Your task to perform on an android device: When is my next appointment? Image 0: 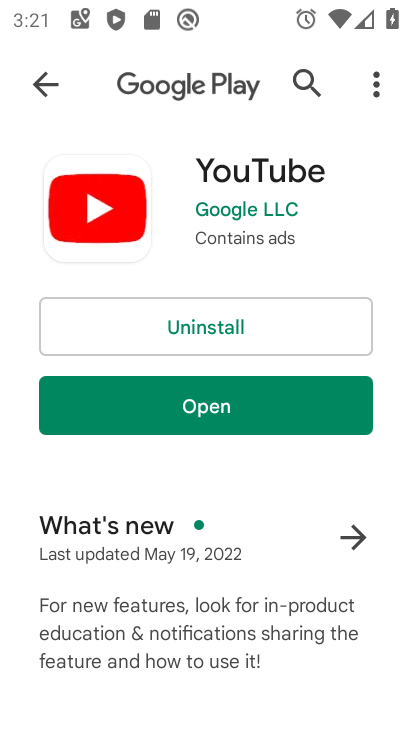
Step 0: press home button
Your task to perform on an android device: When is my next appointment? Image 1: 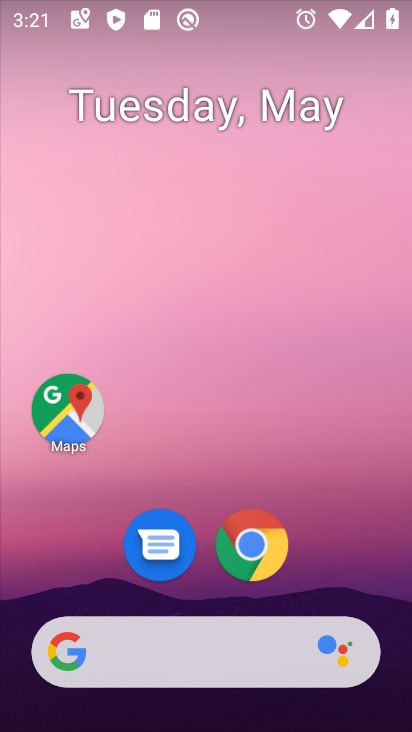
Step 1: drag from (208, 650) to (147, 121)
Your task to perform on an android device: When is my next appointment? Image 2: 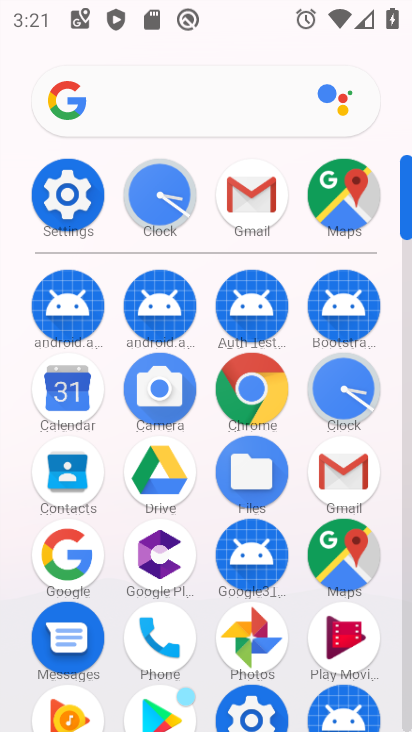
Step 2: click (65, 405)
Your task to perform on an android device: When is my next appointment? Image 3: 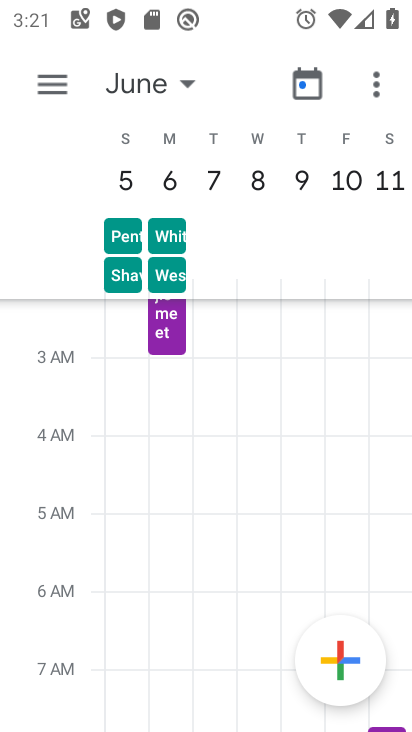
Step 3: drag from (88, 445) to (382, 356)
Your task to perform on an android device: When is my next appointment? Image 4: 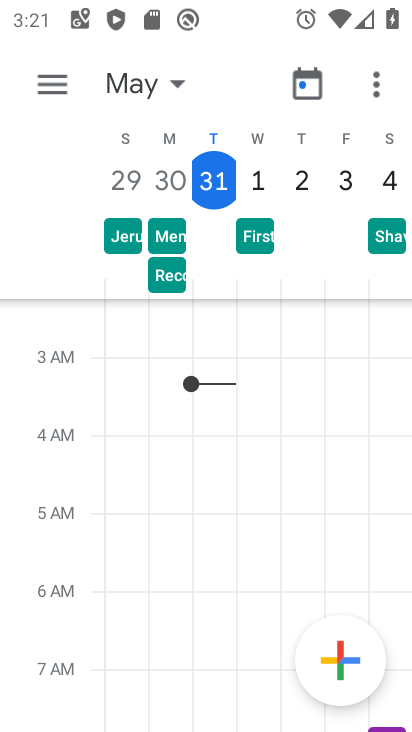
Step 4: click (52, 84)
Your task to perform on an android device: When is my next appointment? Image 5: 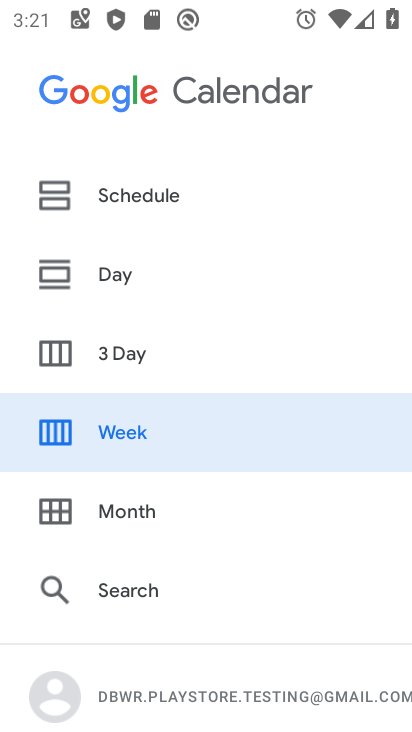
Step 5: click (133, 198)
Your task to perform on an android device: When is my next appointment? Image 6: 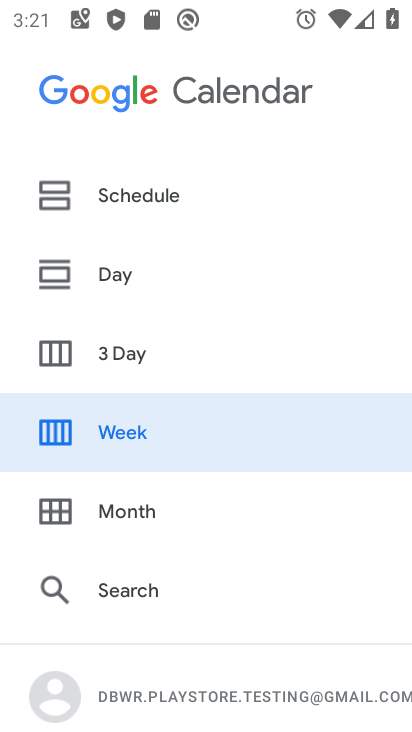
Step 6: click (130, 199)
Your task to perform on an android device: When is my next appointment? Image 7: 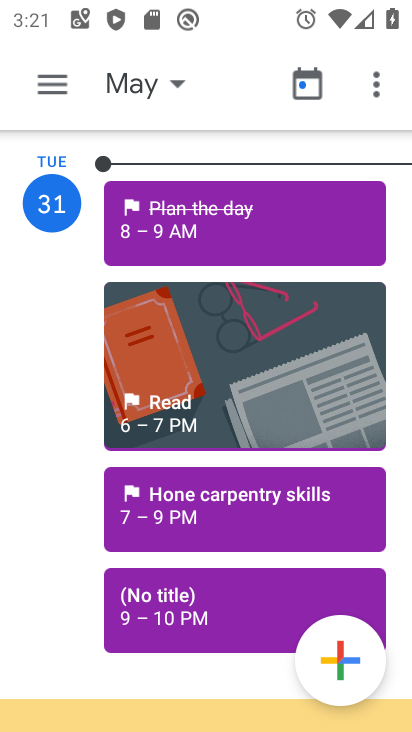
Step 7: task complete